Your task to perform on an android device: toggle improve location accuracy Image 0: 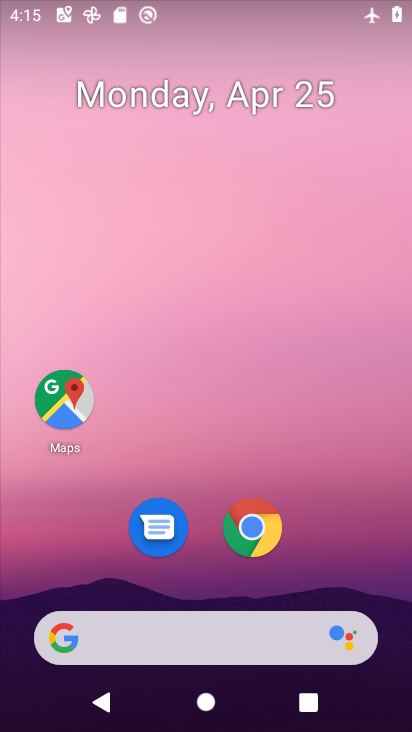
Step 0: drag from (389, 628) to (274, 47)
Your task to perform on an android device: toggle improve location accuracy Image 1: 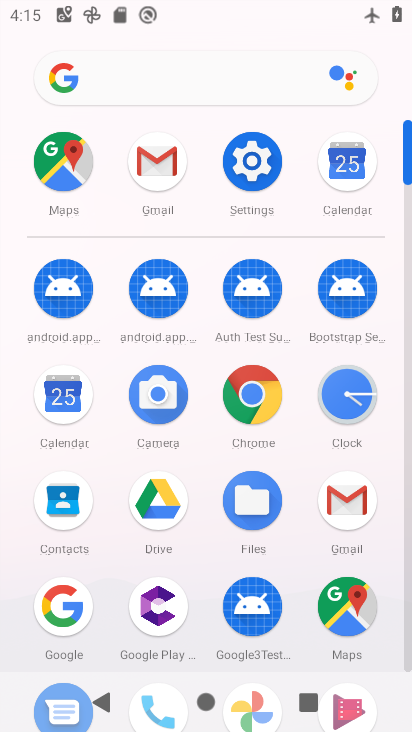
Step 1: click (407, 648)
Your task to perform on an android device: toggle improve location accuracy Image 2: 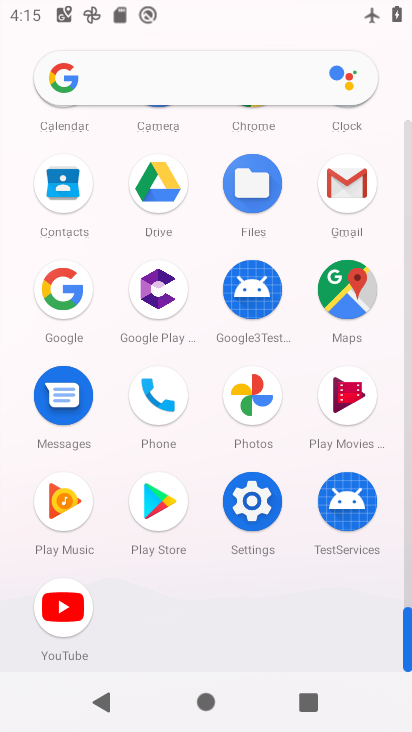
Step 2: click (251, 503)
Your task to perform on an android device: toggle improve location accuracy Image 3: 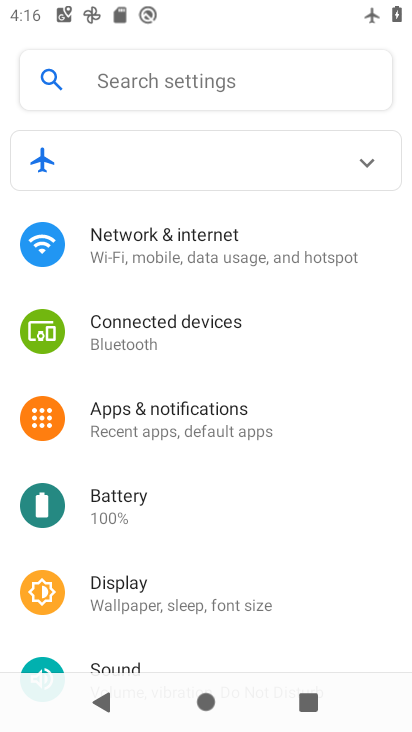
Step 3: drag from (291, 630) to (259, 254)
Your task to perform on an android device: toggle improve location accuracy Image 4: 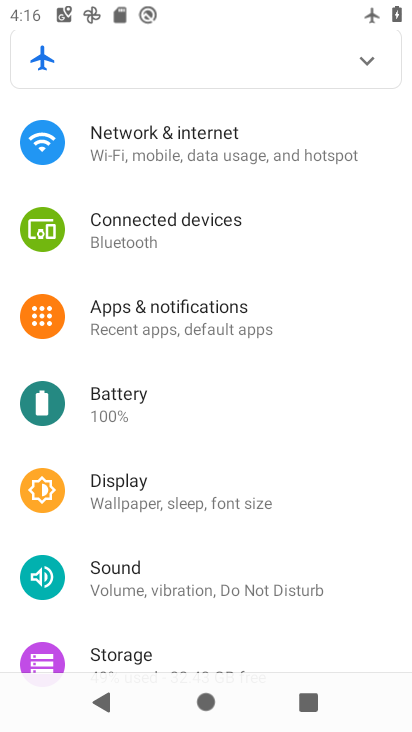
Step 4: drag from (226, 579) to (232, 328)
Your task to perform on an android device: toggle improve location accuracy Image 5: 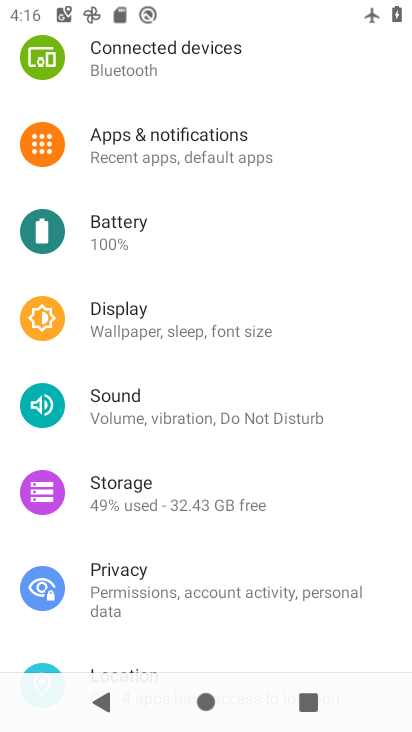
Step 5: drag from (250, 557) to (286, 278)
Your task to perform on an android device: toggle improve location accuracy Image 6: 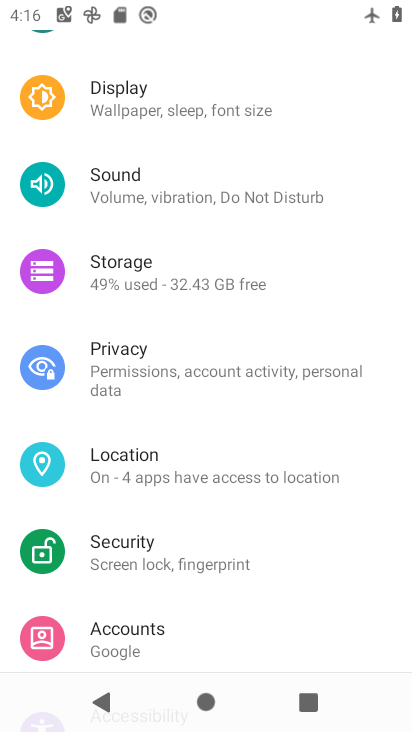
Step 6: click (162, 460)
Your task to perform on an android device: toggle improve location accuracy Image 7: 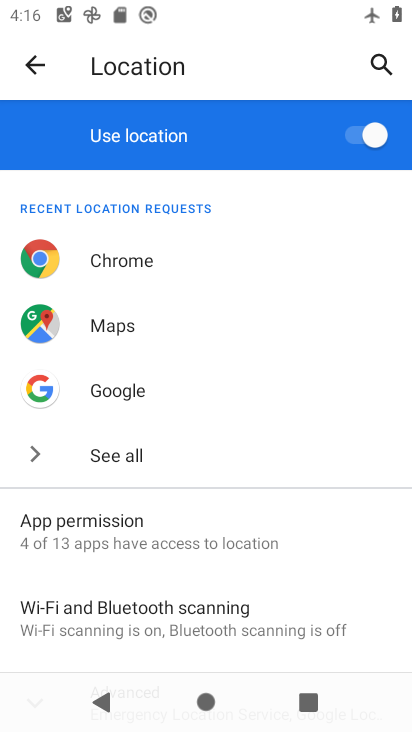
Step 7: drag from (142, 568) to (214, 281)
Your task to perform on an android device: toggle improve location accuracy Image 8: 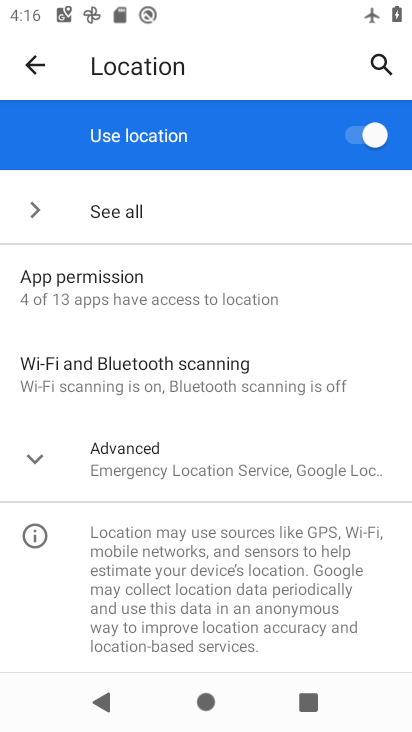
Step 8: click (25, 460)
Your task to perform on an android device: toggle improve location accuracy Image 9: 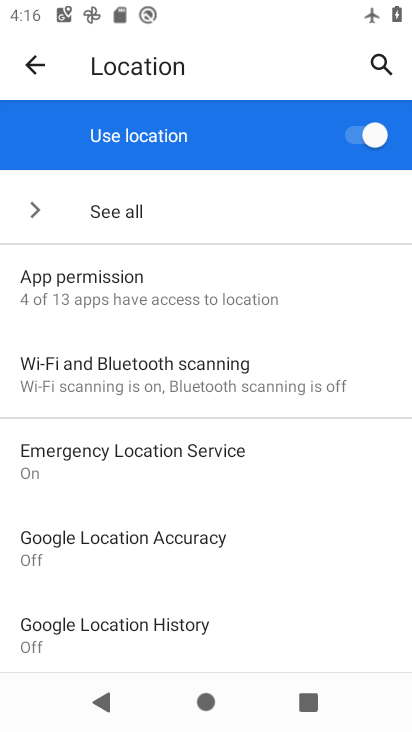
Step 9: click (138, 542)
Your task to perform on an android device: toggle improve location accuracy Image 10: 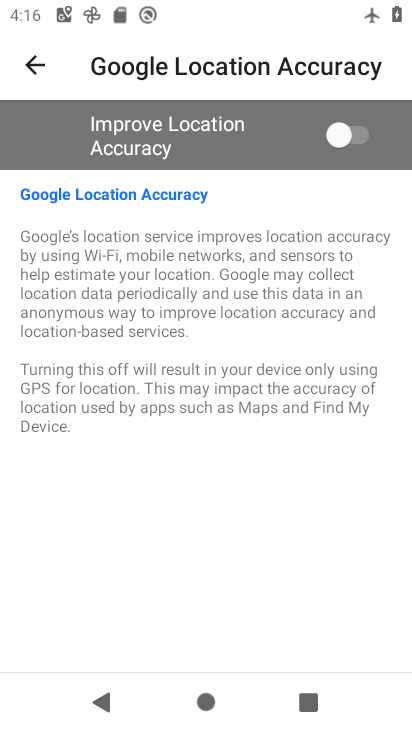
Step 10: click (354, 137)
Your task to perform on an android device: toggle improve location accuracy Image 11: 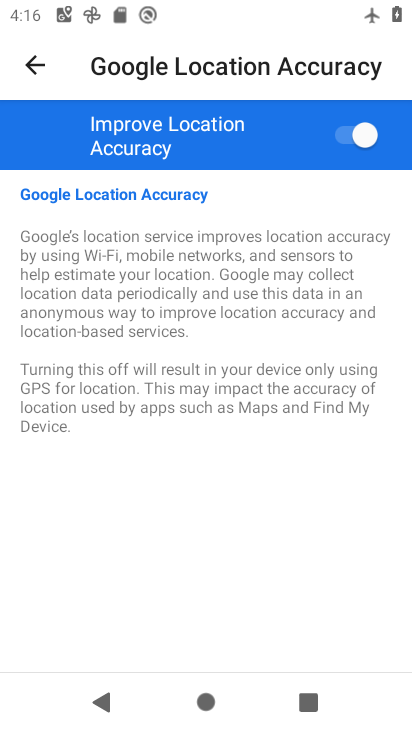
Step 11: task complete